Your task to perform on an android device: Open CNN.com Image 0: 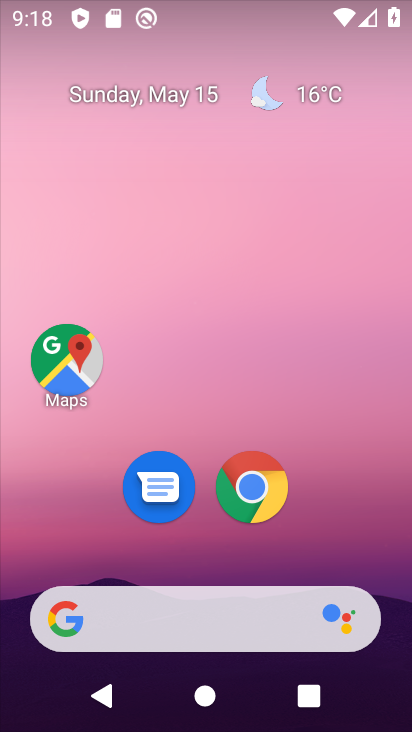
Step 0: drag from (365, 208) to (365, 111)
Your task to perform on an android device: Open CNN.com Image 1: 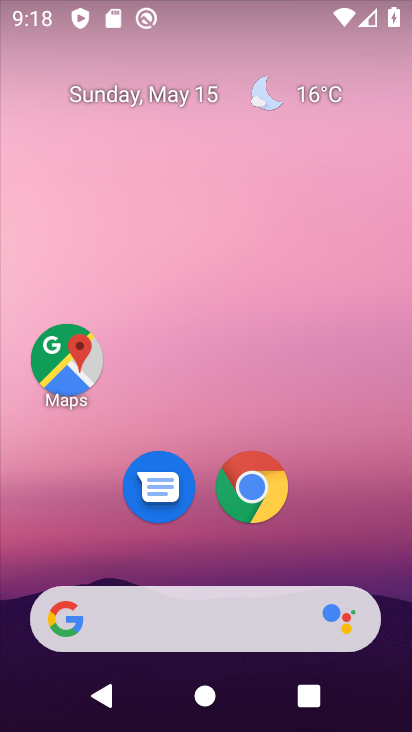
Step 1: drag from (342, 544) to (319, 95)
Your task to perform on an android device: Open CNN.com Image 2: 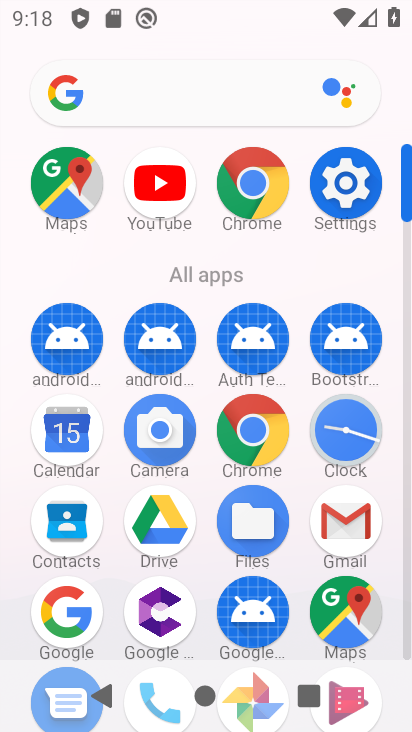
Step 2: click (236, 443)
Your task to perform on an android device: Open CNN.com Image 3: 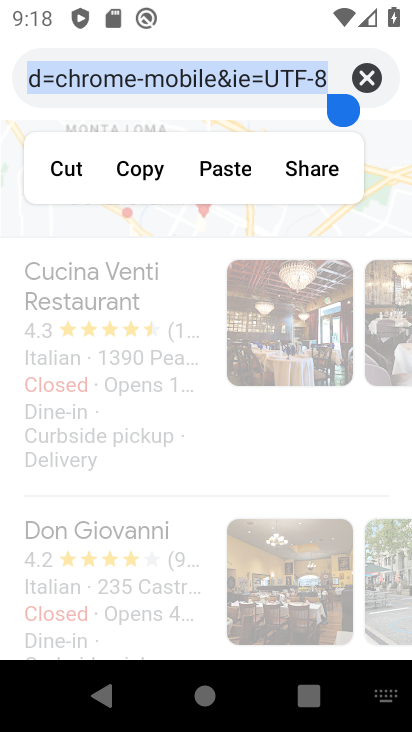
Step 3: click (377, 81)
Your task to perform on an android device: Open CNN.com Image 4: 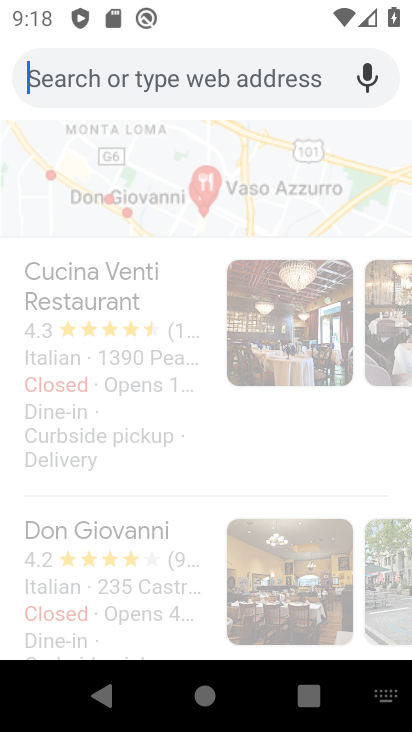
Step 4: type "cnn.com"
Your task to perform on an android device: Open CNN.com Image 5: 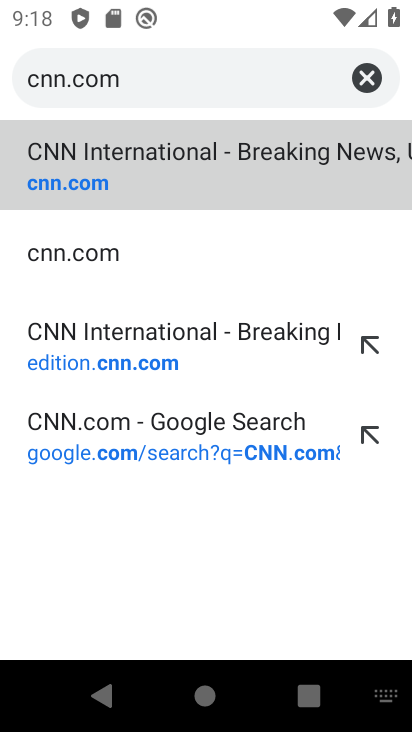
Step 5: click (100, 178)
Your task to perform on an android device: Open CNN.com Image 6: 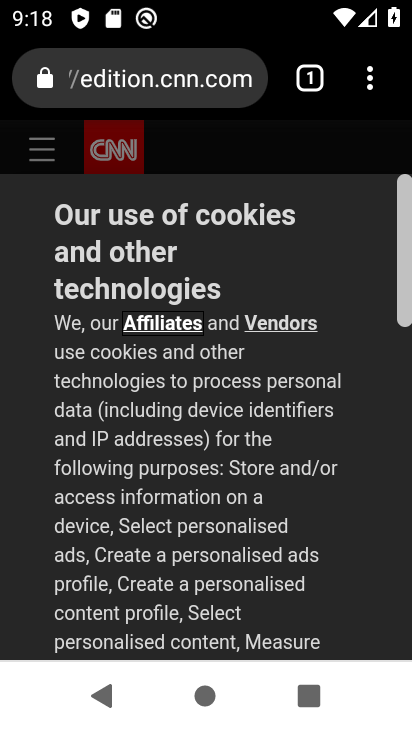
Step 6: drag from (323, 592) to (361, 247)
Your task to perform on an android device: Open CNN.com Image 7: 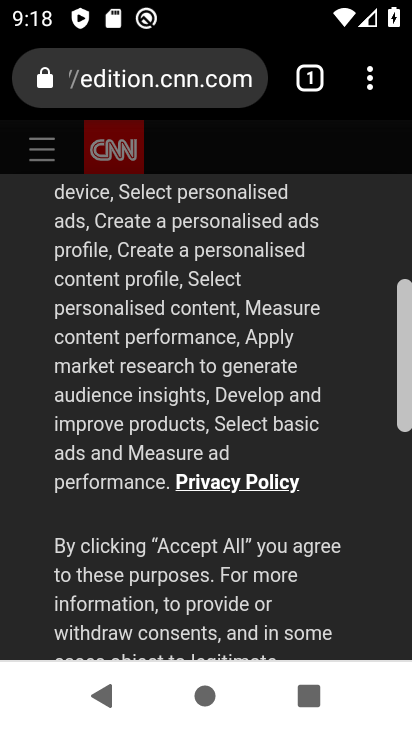
Step 7: drag from (311, 651) to (376, 290)
Your task to perform on an android device: Open CNN.com Image 8: 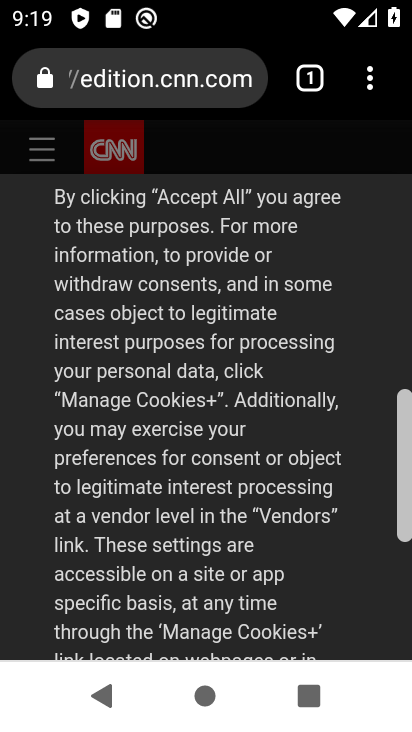
Step 8: drag from (334, 606) to (371, 246)
Your task to perform on an android device: Open CNN.com Image 9: 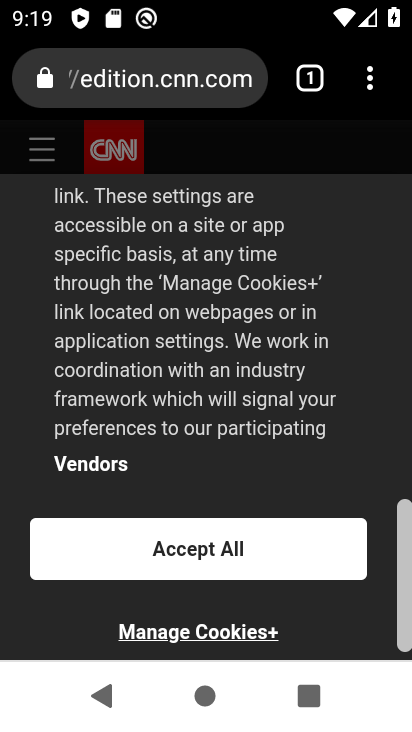
Step 9: click (195, 546)
Your task to perform on an android device: Open CNN.com Image 10: 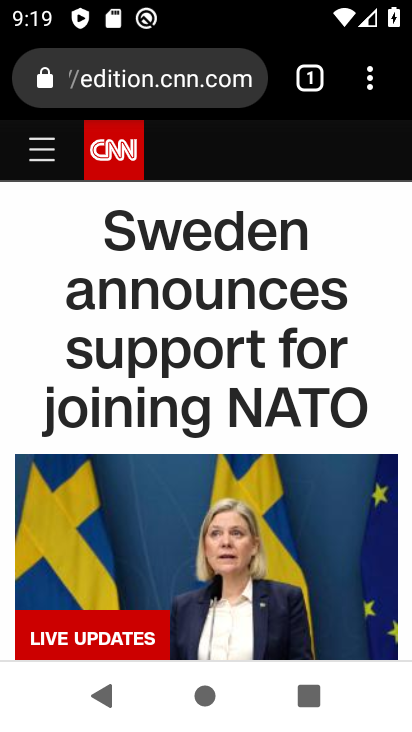
Step 10: task complete